Your task to perform on an android device: turn off notifications settings in the gmail app Image 0: 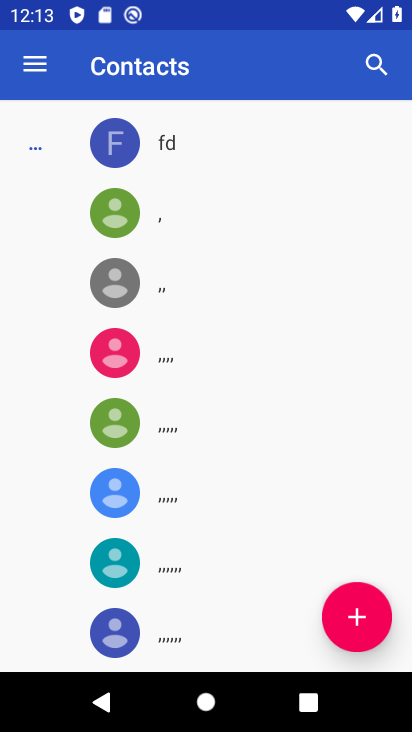
Step 0: press home button
Your task to perform on an android device: turn off notifications settings in the gmail app Image 1: 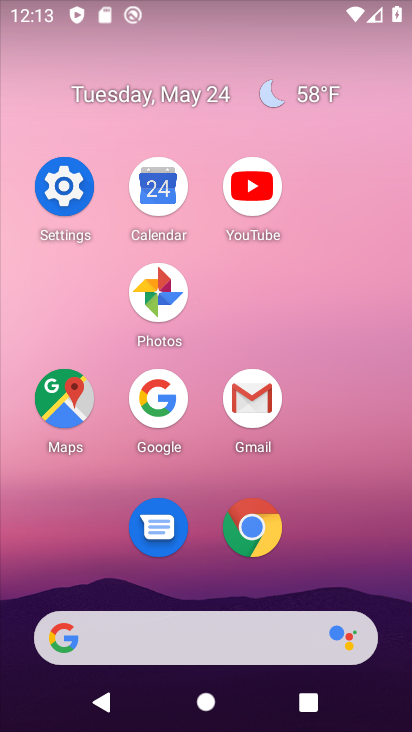
Step 1: click (273, 404)
Your task to perform on an android device: turn off notifications settings in the gmail app Image 2: 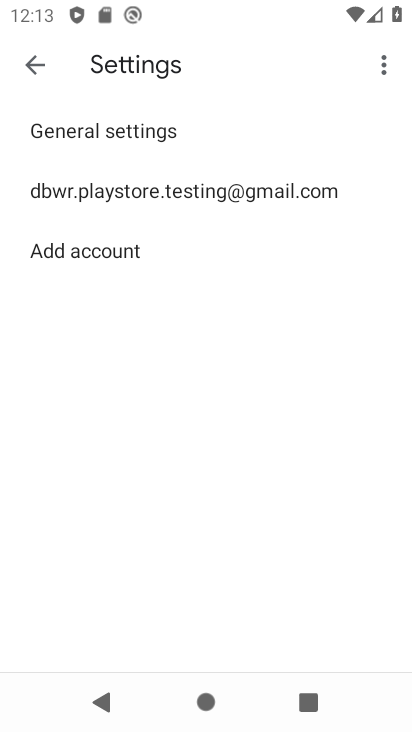
Step 2: click (78, 181)
Your task to perform on an android device: turn off notifications settings in the gmail app Image 3: 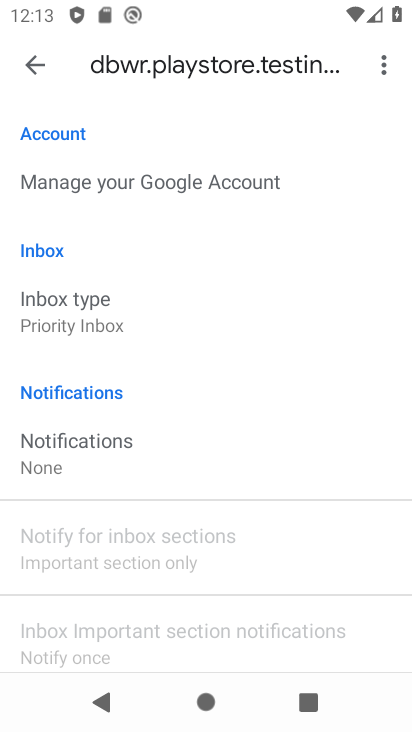
Step 3: click (70, 443)
Your task to perform on an android device: turn off notifications settings in the gmail app Image 4: 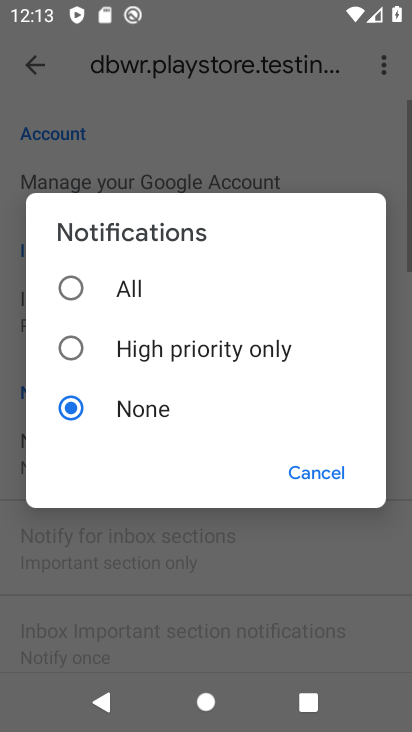
Step 4: task complete